Your task to perform on an android device: change the clock style Image 0: 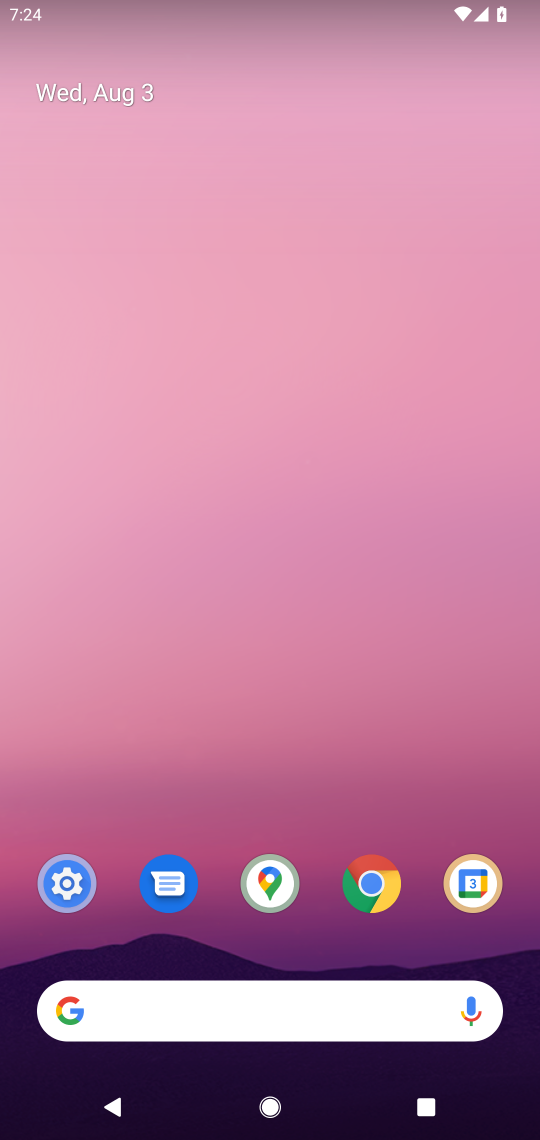
Step 0: click (80, 895)
Your task to perform on an android device: change the clock style Image 1: 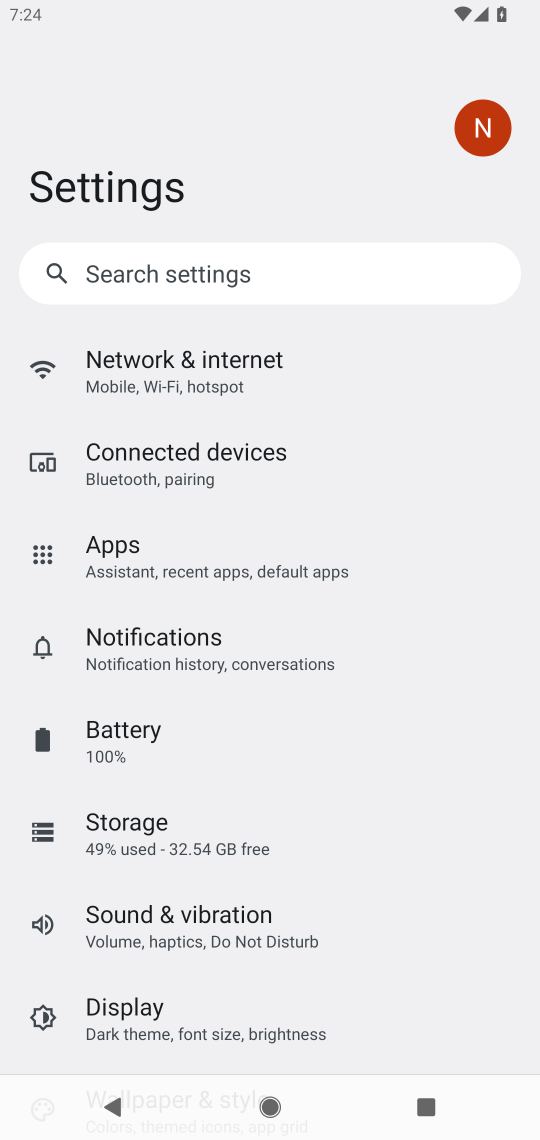
Step 1: press home button
Your task to perform on an android device: change the clock style Image 2: 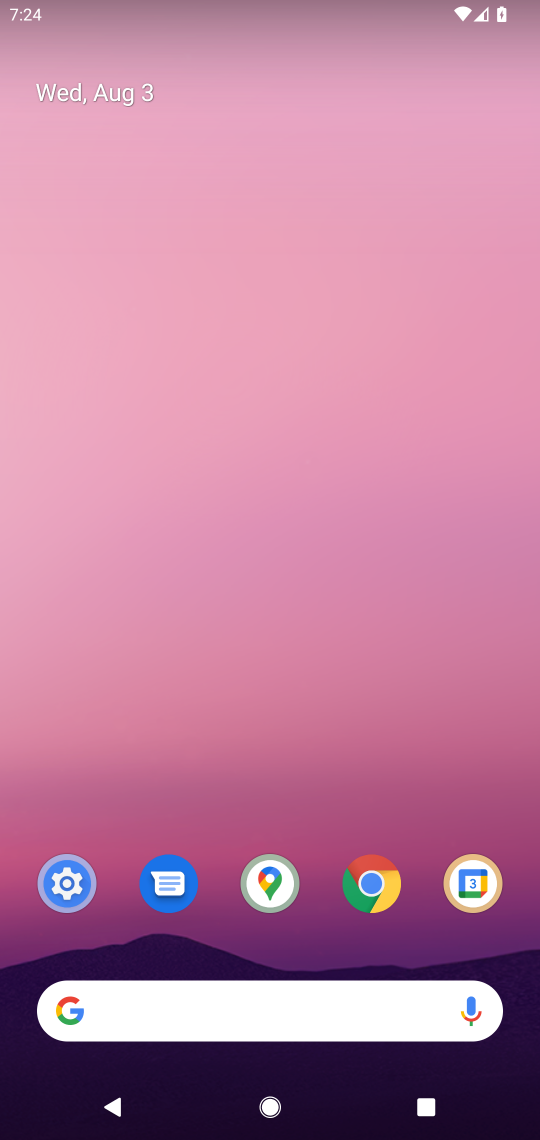
Step 2: drag from (276, 142) to (264, 238)
Your task to perform on an android device: change the clock style Image 3: 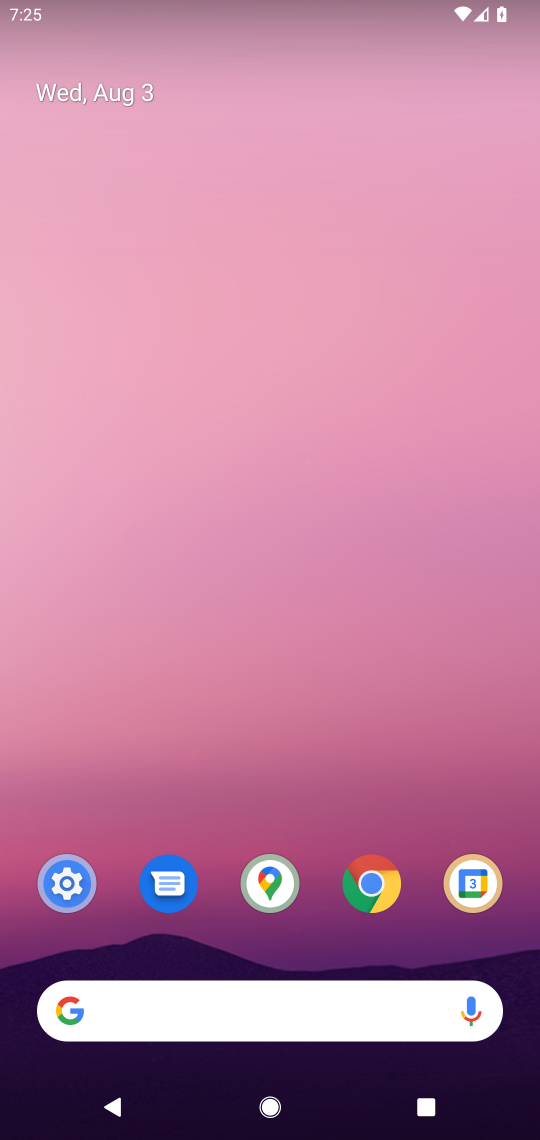
Step 3: drag from (438, 842) to (443, 11)
Your task to perform on an android device: change the clock style Image 4: 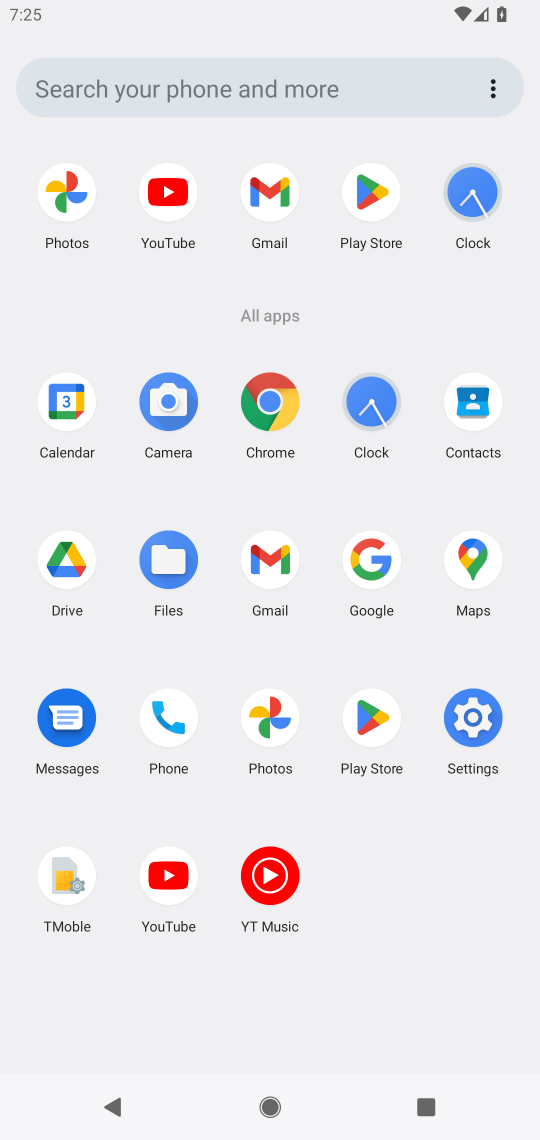
Step 4: click (476, 212)
Your task to perform on an android device: change the clock style Image 5: 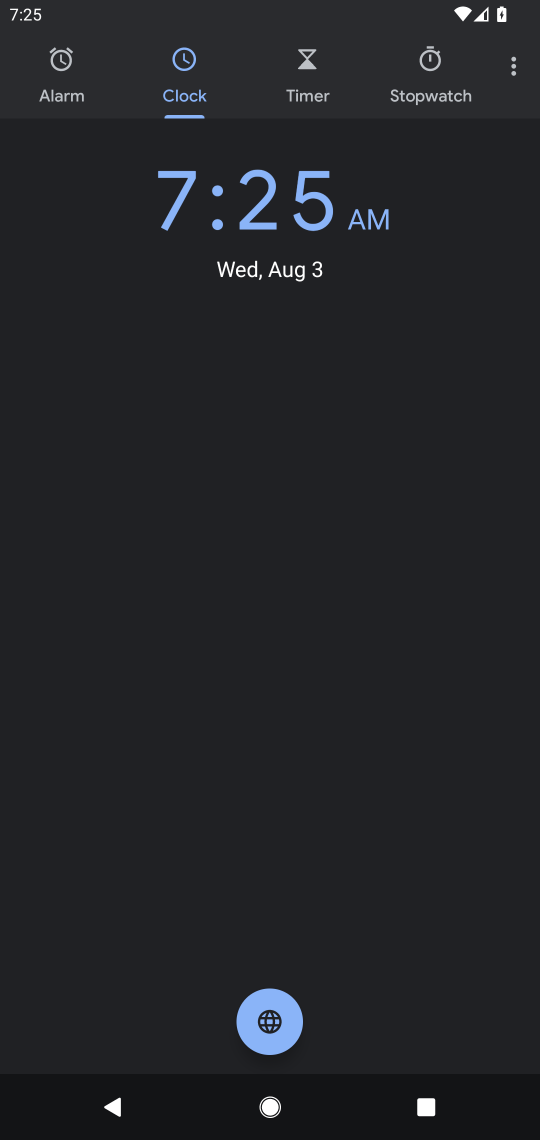
Step 5: click (511, 79)
Your task to perform on an android device: change the clock style Image 6: 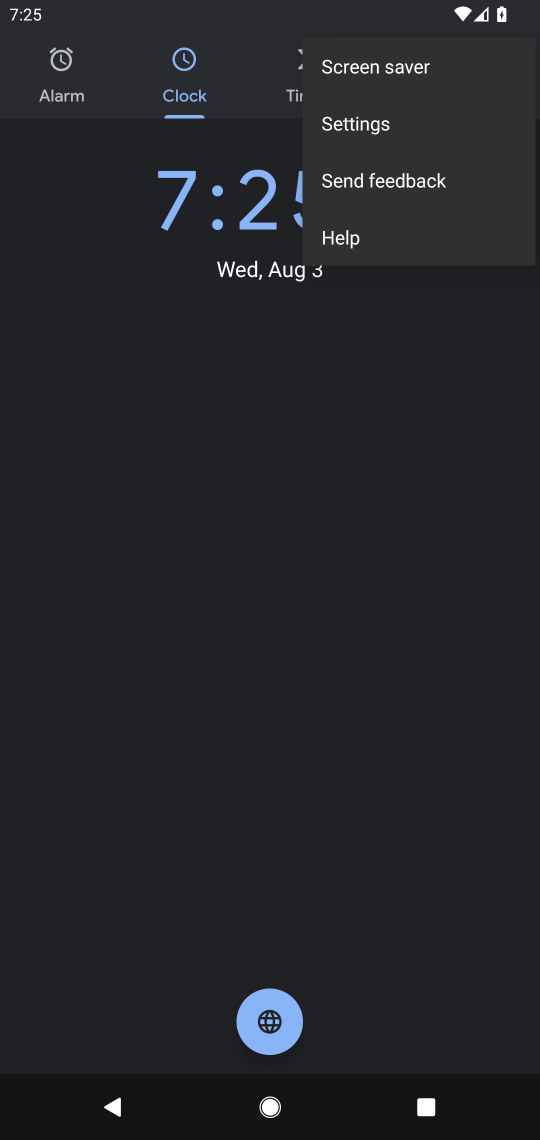
Step 6: click (363, 125)
Your task to perform on an android device: change the clock style Image 7: 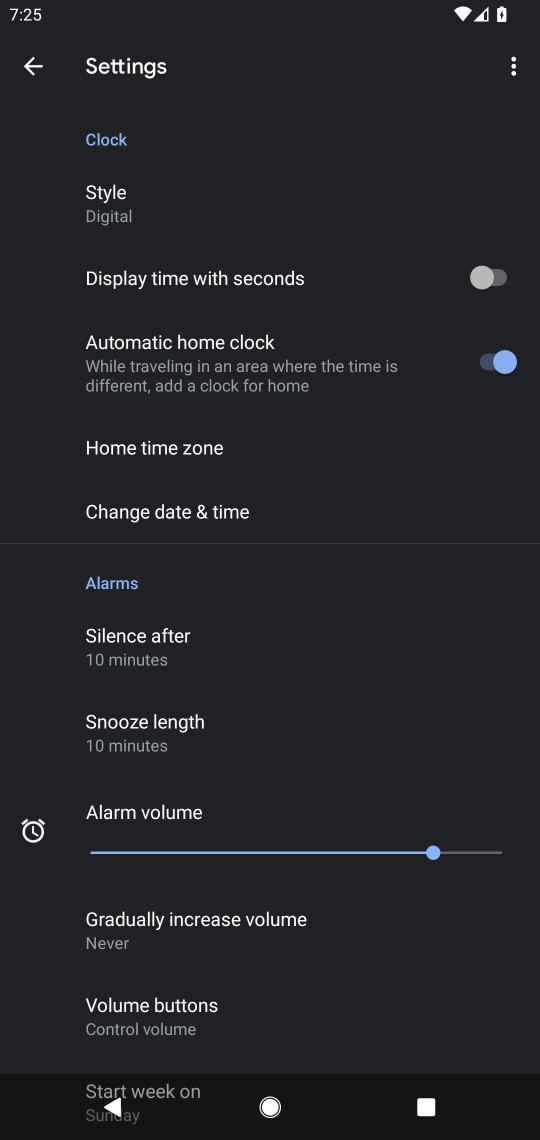
Step 7: click (268, 211)
Your task to perform on an android device: change the clock style Image 8: 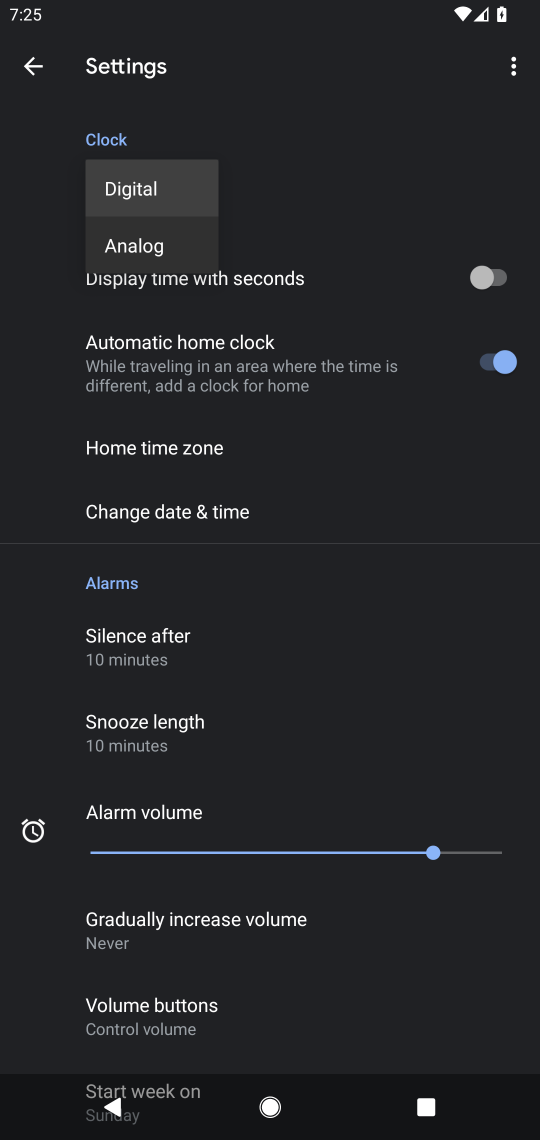
Step 8: click (160, 240)
Your task to perform on an android device: change the clock style Image 9: 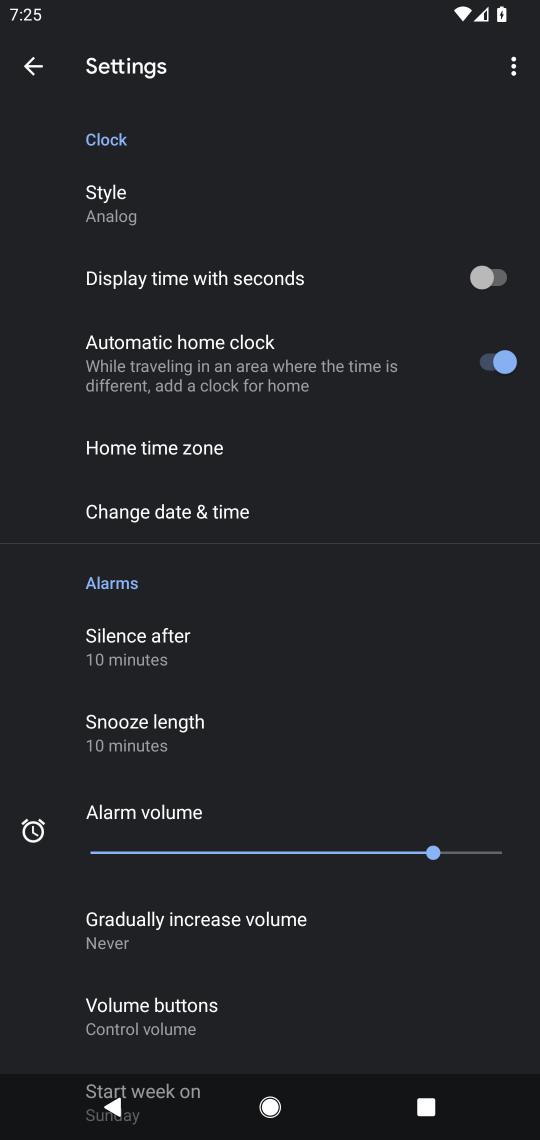
Step 9: task complete